Your task to perform on an android device: Open eBay Image 0: 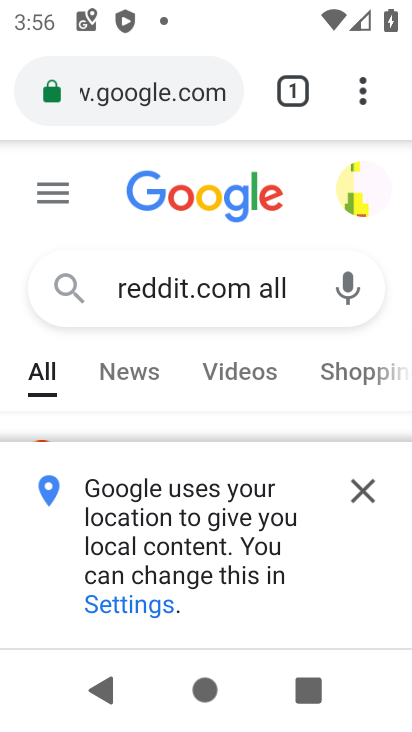
Step 0: task complete